Your task to perform on an android device: change the clock style Image 0: 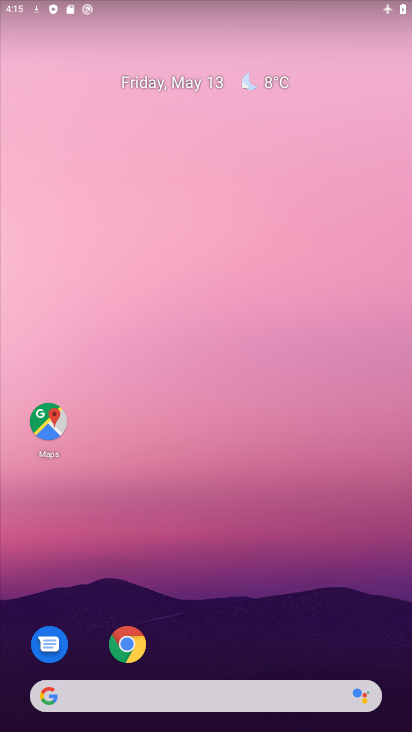
Step 0: press home button
Your task to perform on an android device: change the clock style Image 1: 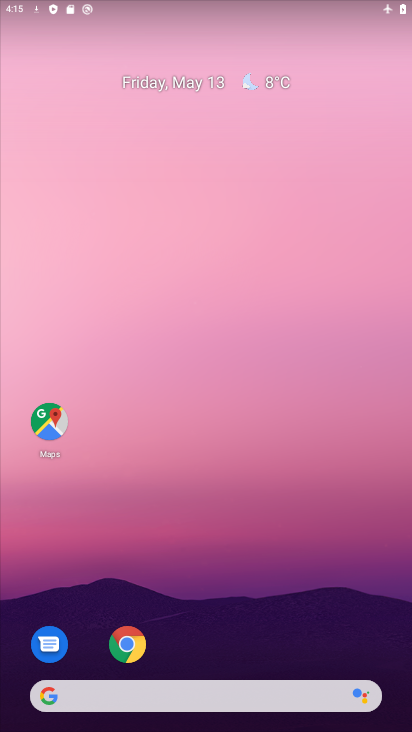
Step 1: drag from (272, 535) to (266, 69)
Your task to perform on an android device: change the clock style Image 2: 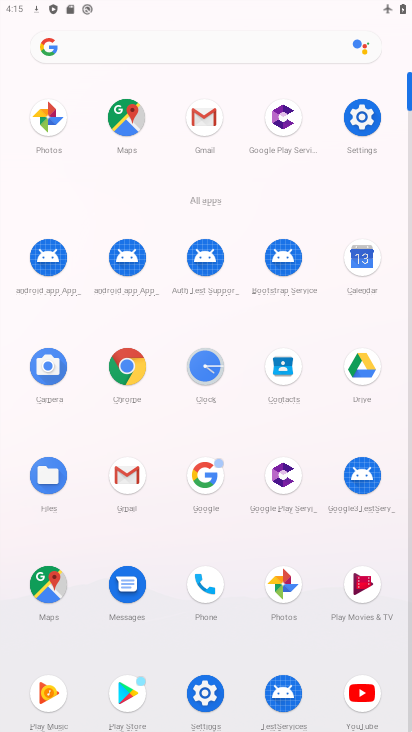
Step 2: click (365, 121)
Your task to perform on an android device: change the clock style Image 3: 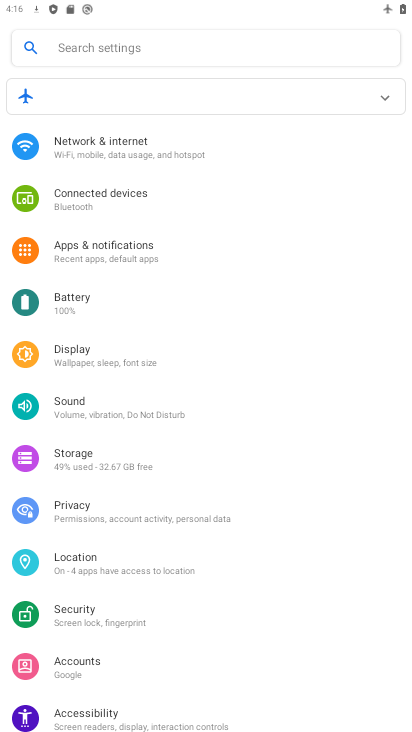
Step 3: task complete